Your task to perform on an android device: turn on airplane mode Image 0: 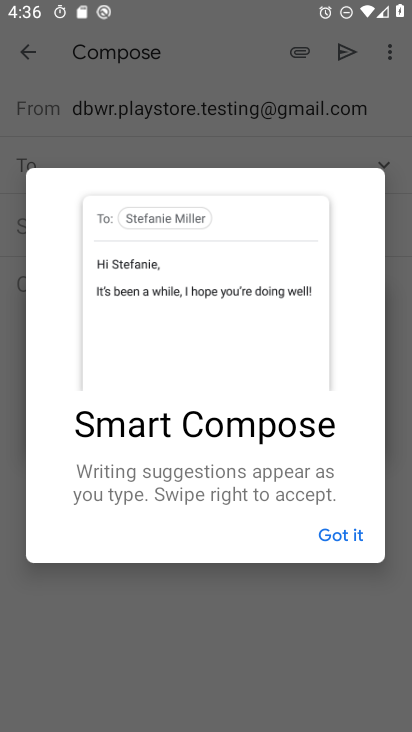
Step 0: press home button
Your task to perform on an android device: turn on airplane mode Image 1: 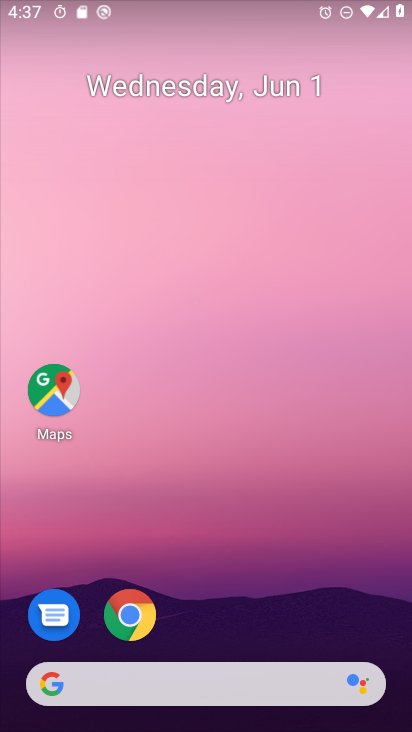
Step 1: drag from (369, 7) to (252, 289)
Your task to perform on an android device: turn on airplane mode Image 2: 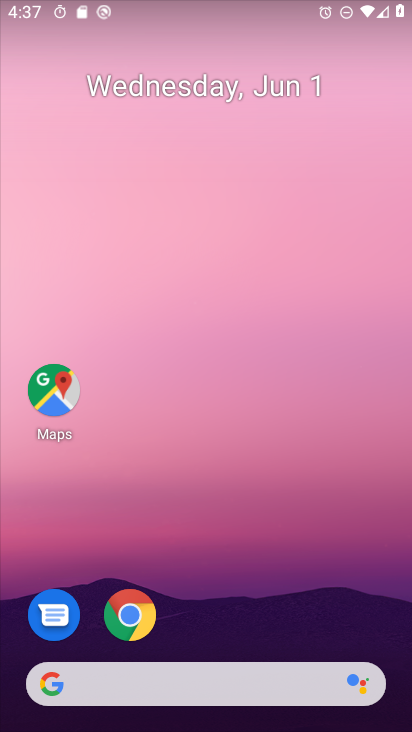
Step 2: drag from (377, 9) to (255, 423)
Your task to perform on an android device: turn on airplane mode Image 3: 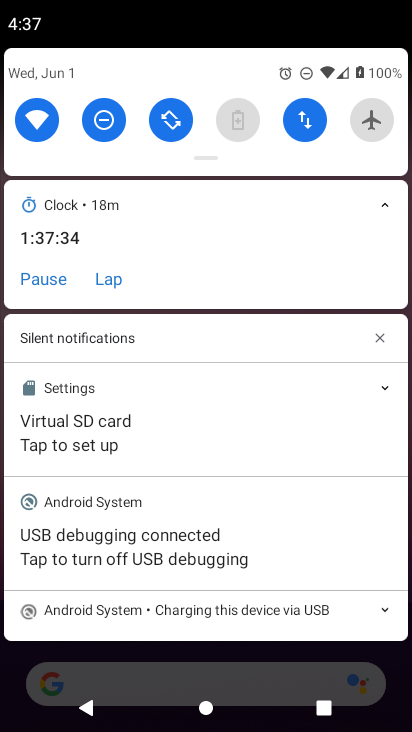
Step 3: click (372, 122)
Your task to perform on an android device: turn on airplane mode Image 4: 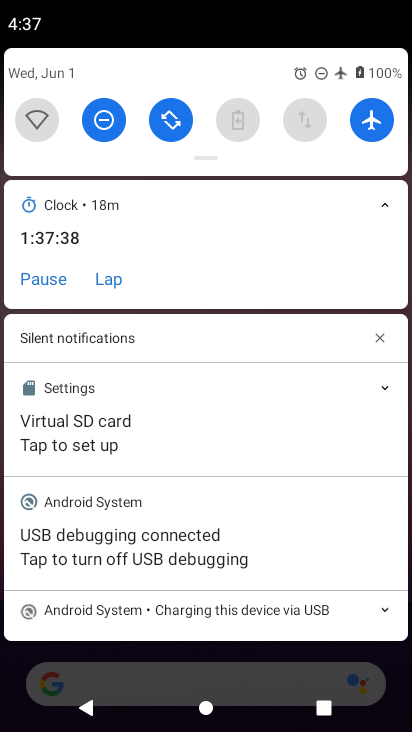
Step 4: task complete